Your task to perform on an android device: Go to internet settings Image 0: 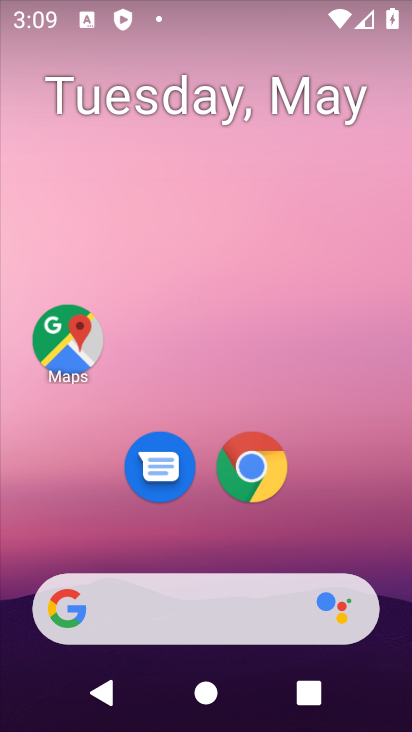
Step 0: drag from (321, 506) to (218, 5)
Your task to perform on an android device: Go to internet settings Image 1: 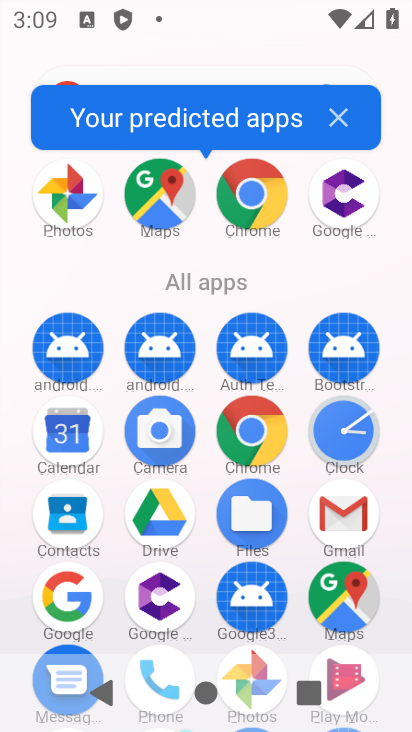
Step 1: task complete